Your task to perform on an android device: visit the assistant section in the google photos Image 0: 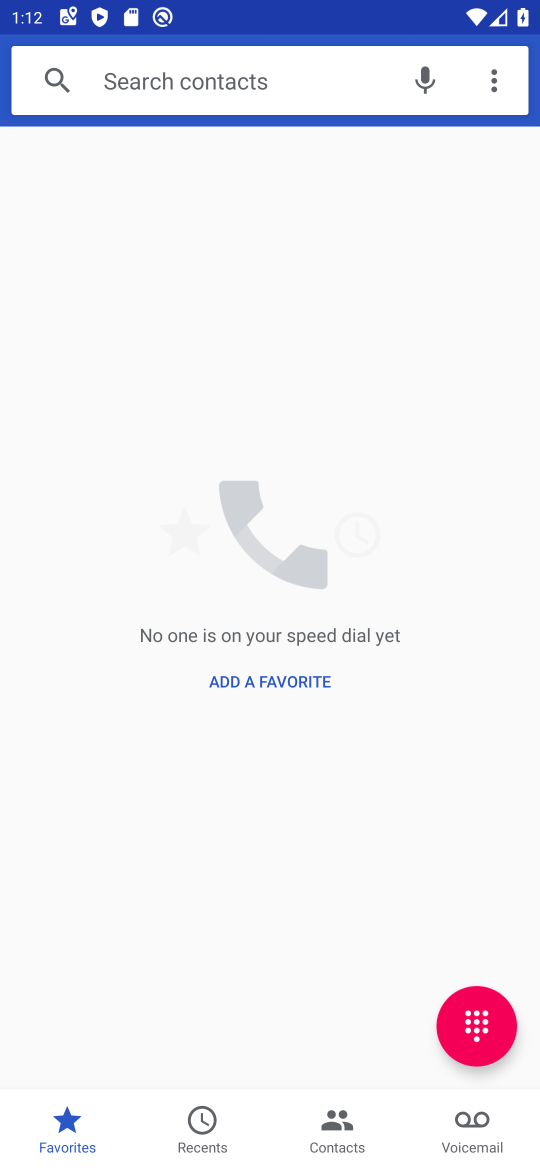
Step 0: press home button
Your task to perform on an android device: visit the assistant section in the google photos Image 1: 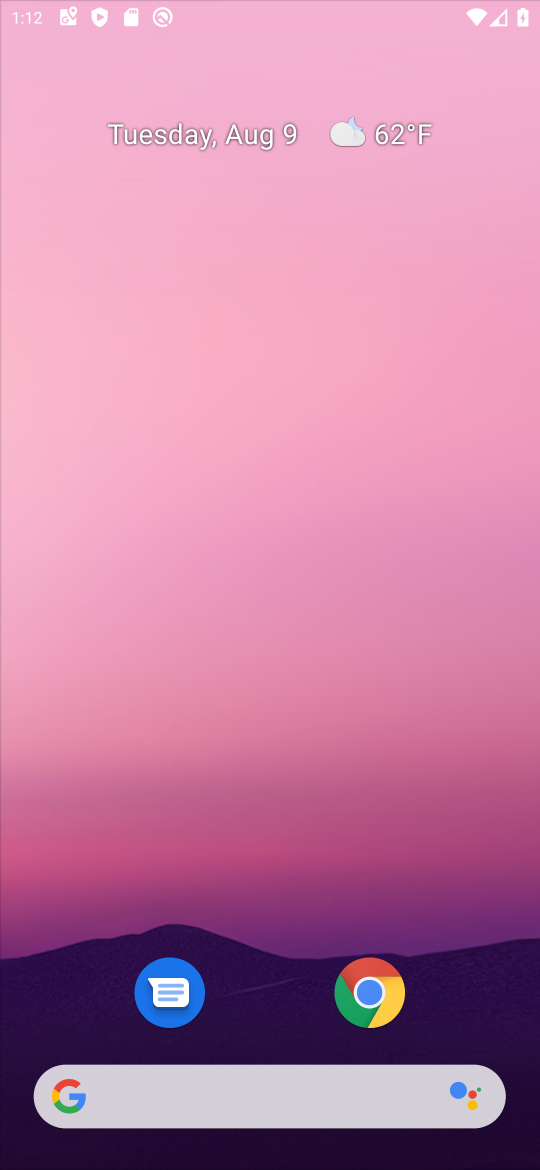
Step 1: drag from (254, 964) to (258, 574)
Your task to perform on an android device: visit the assistant section in the google photos Image 2: 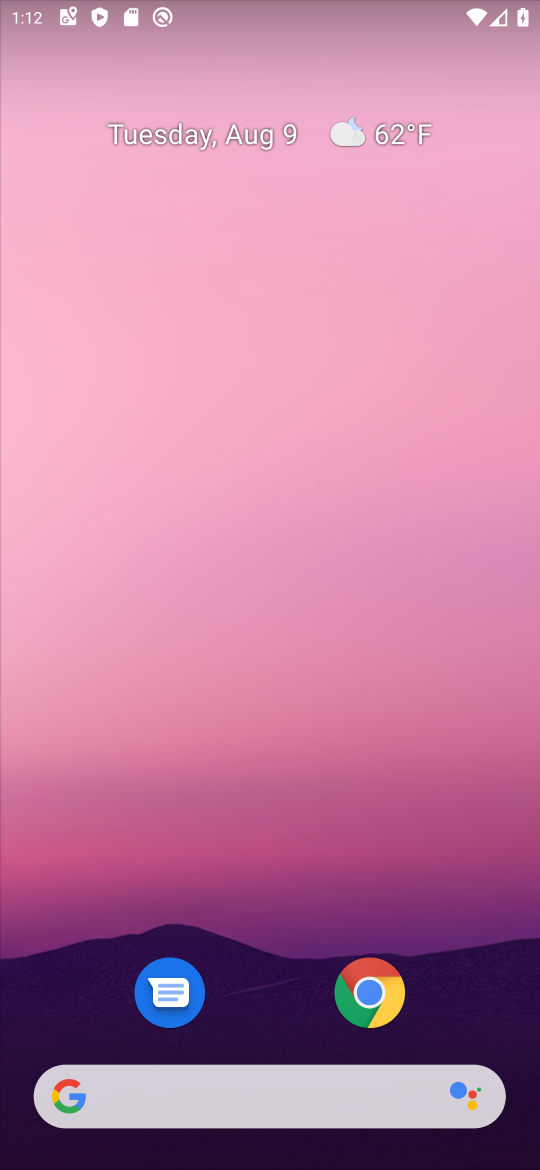
Step 2: drag from (322, 1089) to (315, 176)
Your task to perform on an android device: visit the assistant section in the google photos Image 3: 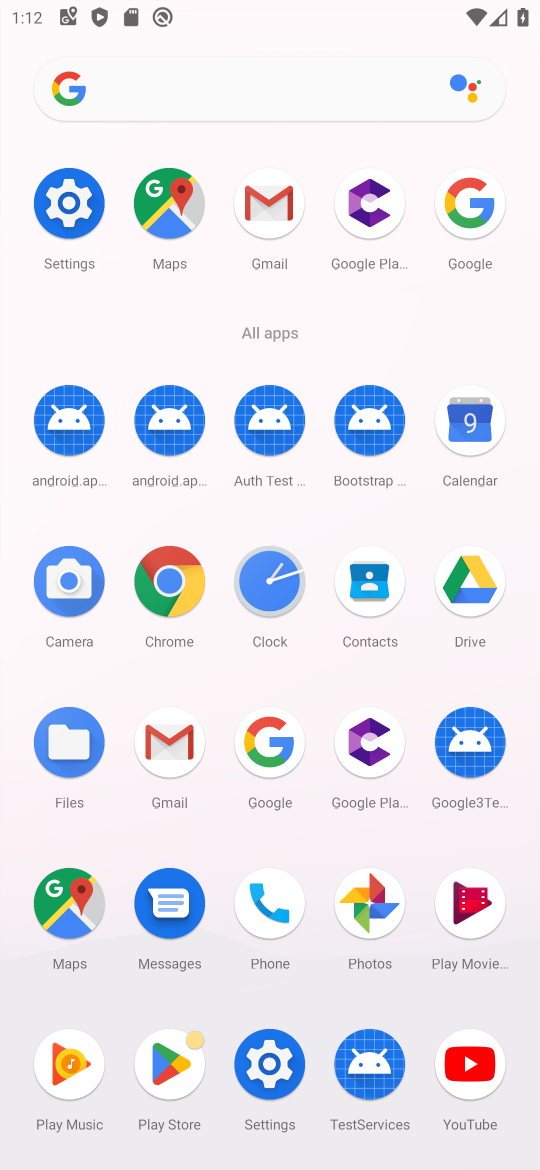
Step 3: click (381, 945)
Your task to perform on an android device: visit the assistant section in the google photos Image 4: 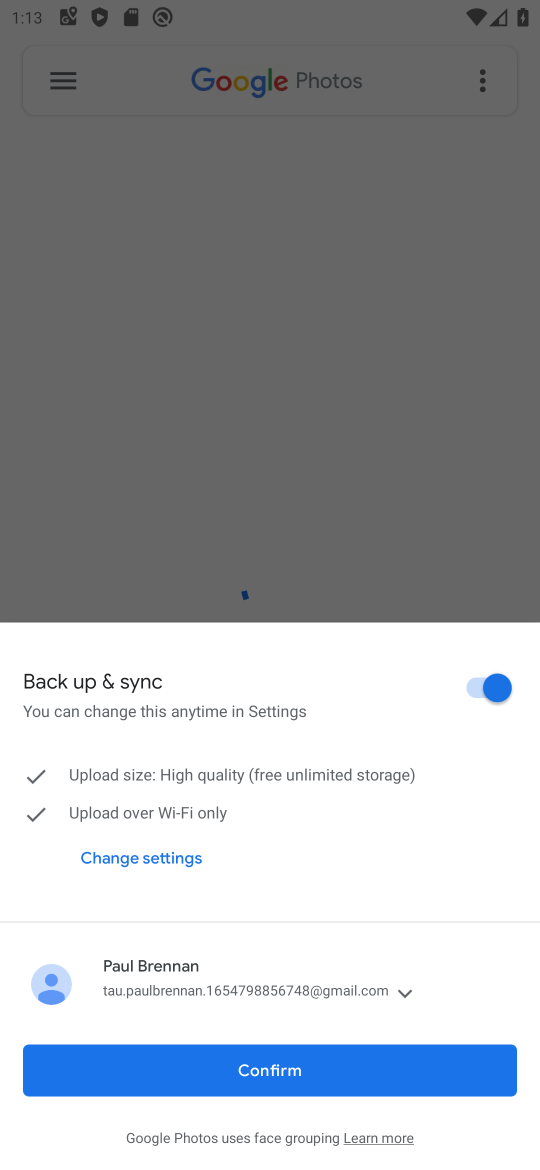
Step 4: click (338, 1044)
Your task to perform on an android device: visit the assistant section in the google photos Image 5: 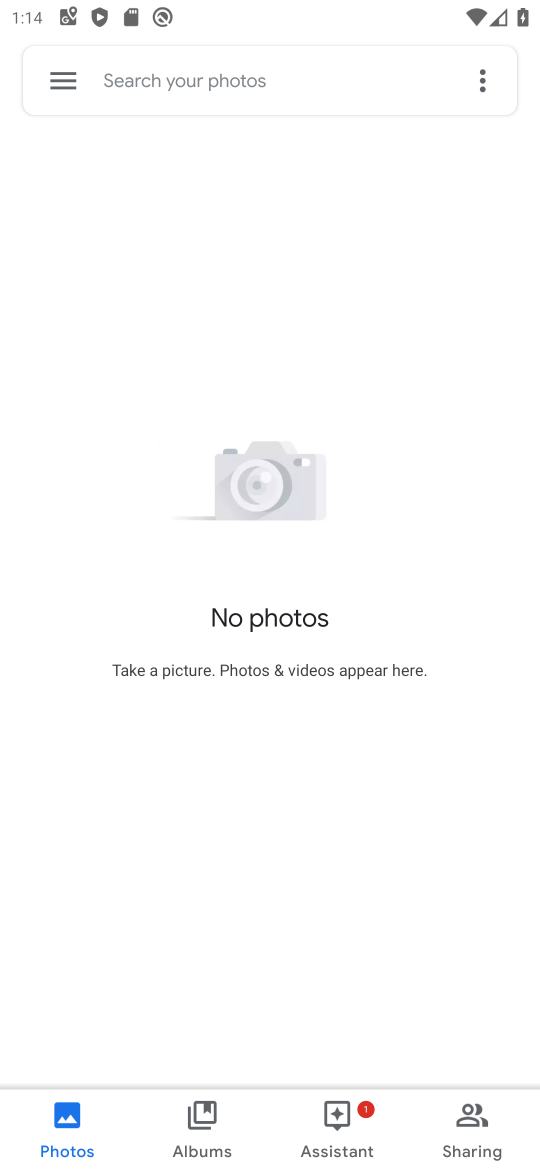
Step 5: click (331, 1128)
Your task to perform on an android device: visit the assistant section in the google photos Image 6: 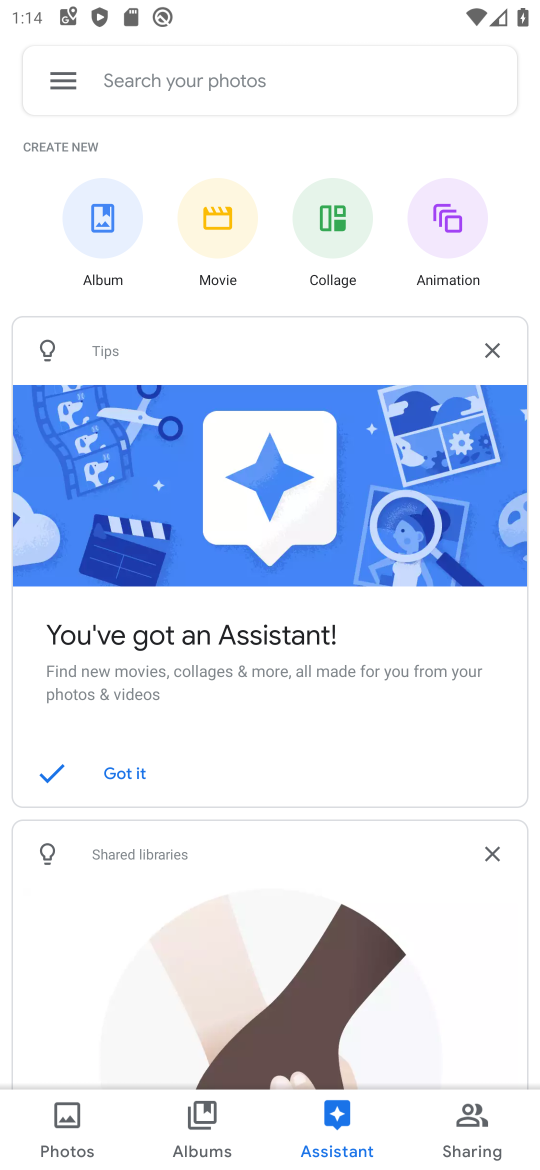
Step 6: task complete